Your task to perform on an android device: Open the phone app and click the voicemail tab. Image 0: 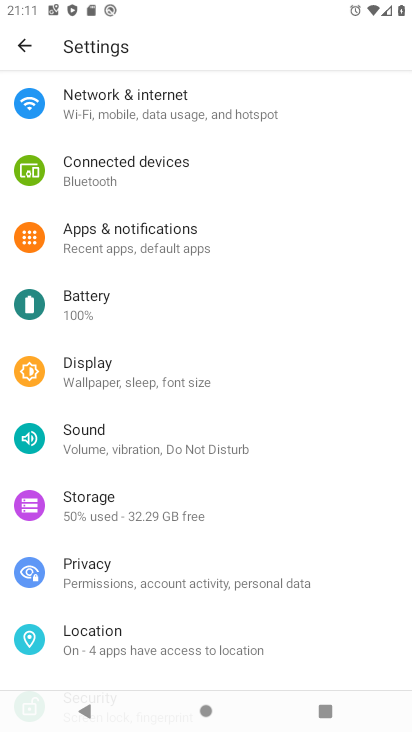
Step 0: press home button
Your task to perform on an android device: Open the phone app and click the voicemail tab. Image 1: 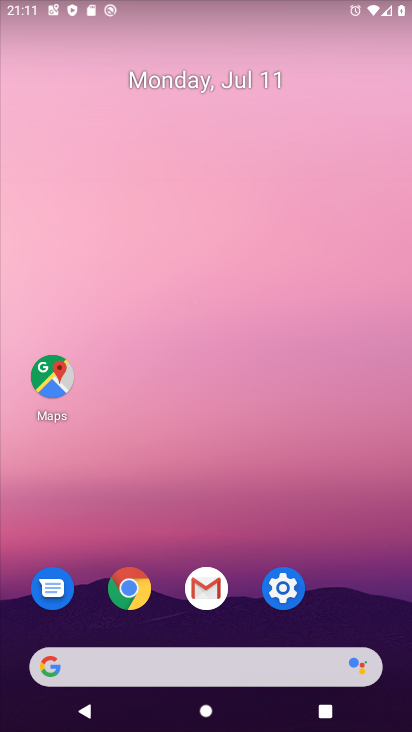
Step 1: drag from (173, 691) to (216, 280)
Your task to perform on an android device: Open the phone app and click the voicemail tab. Image 2: 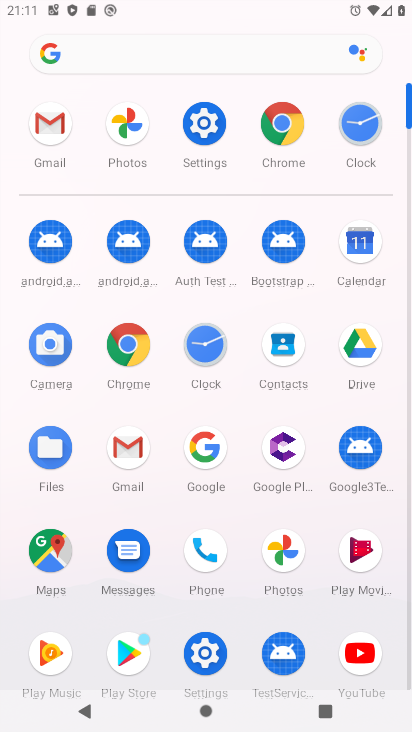
Step 2: click (209, 550)
Your task to perform on an android device: Open the phone app and click the voicemail tab. Image 3: 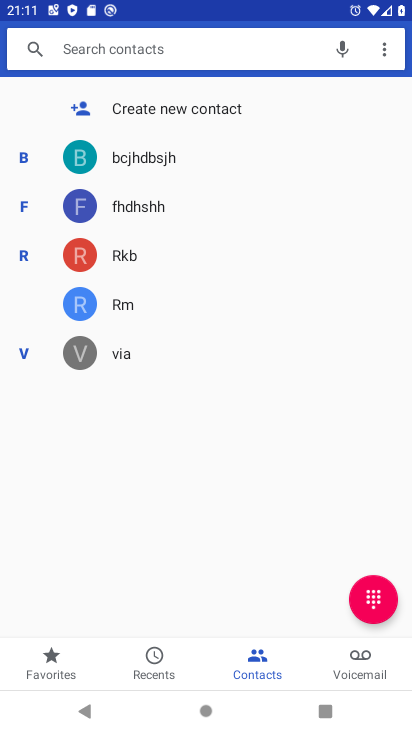
Step 3: click (337, 662)
Your task to perform on an android device: Open the phone app and click the voicemail tab. Image 4: 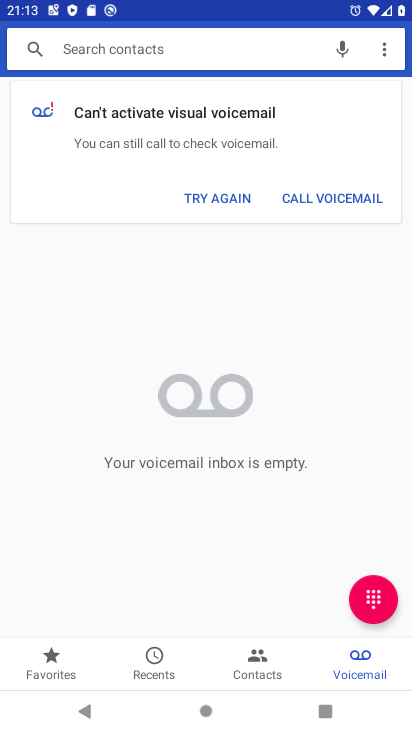
Step 4: task complete